Your task to perform on an android device: add a contact in the contacts app Image 0: 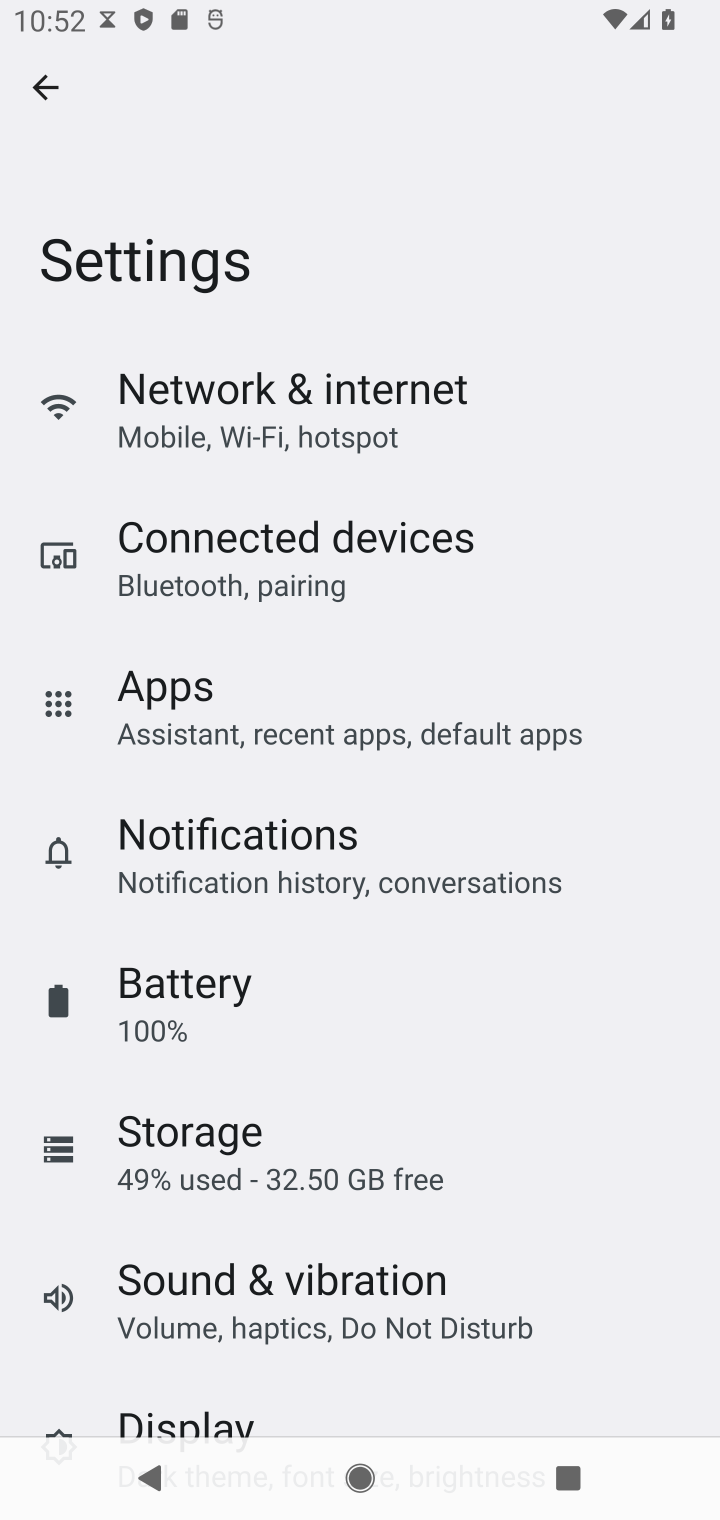
Step 0: press back button
Your task to perform on an android device: add a contact in the contacts app Image 1: 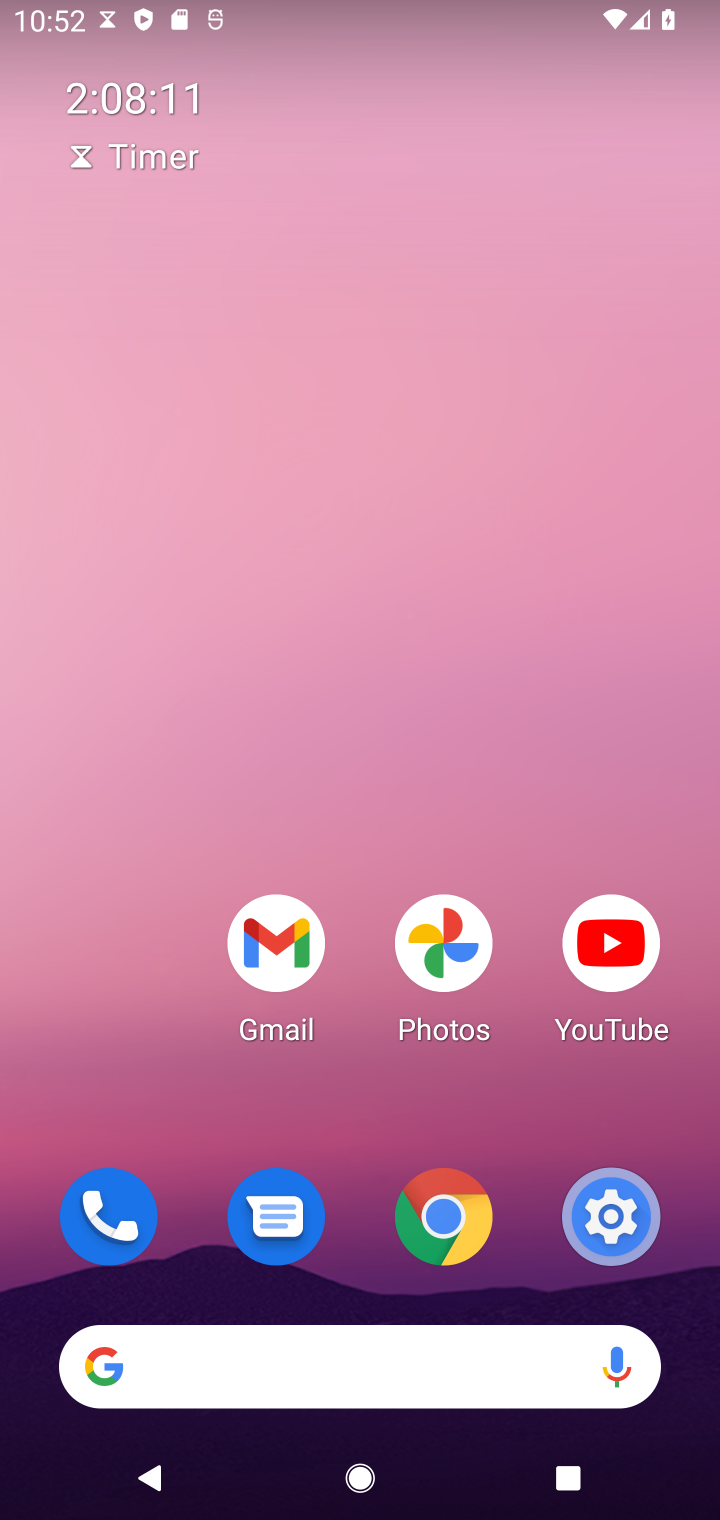
Step 1: drag from (150, 828) to (264, 68)
Your task to perform on an android device: add a contact in the contacts app Image 2: 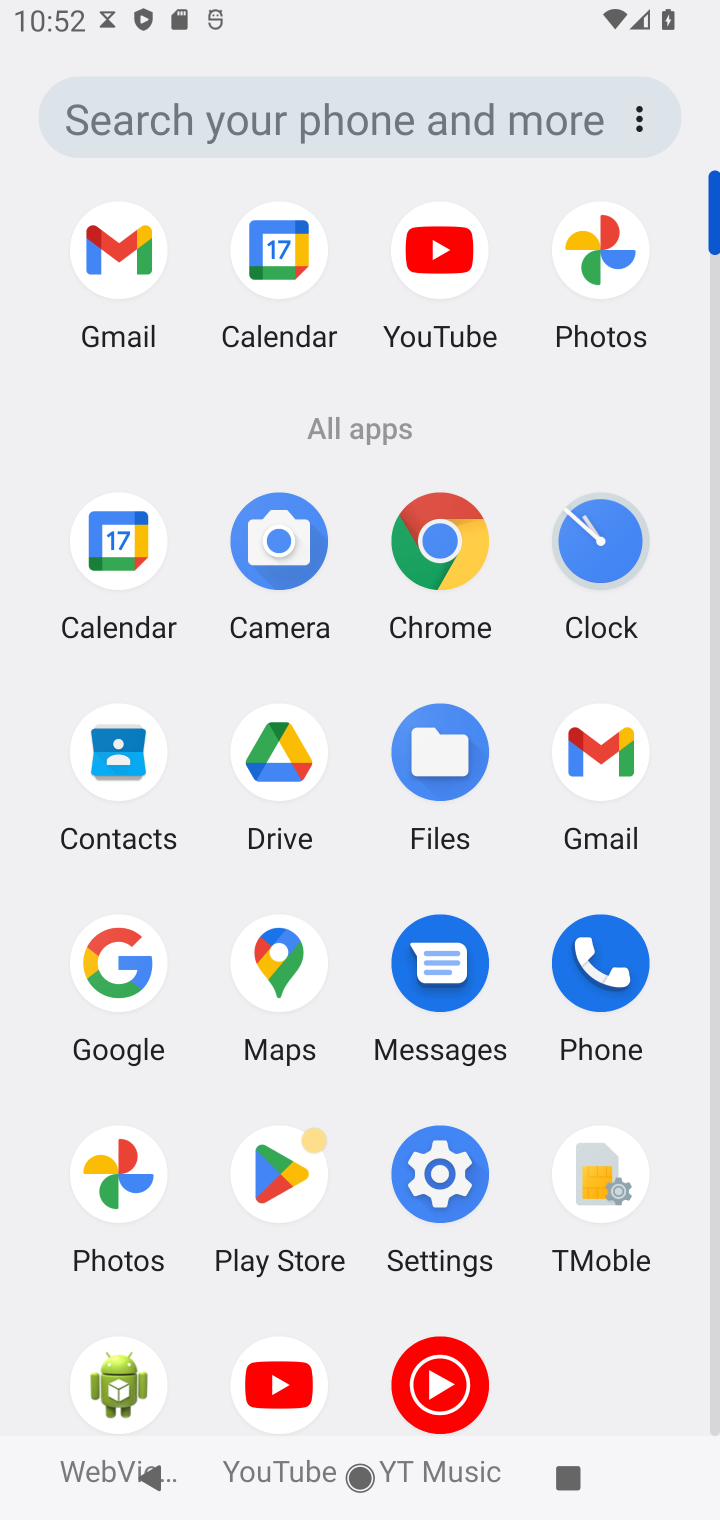
Step 2: click (593, 989)
Your task to perform on an android device: add a contact in the contacts app Image 3: 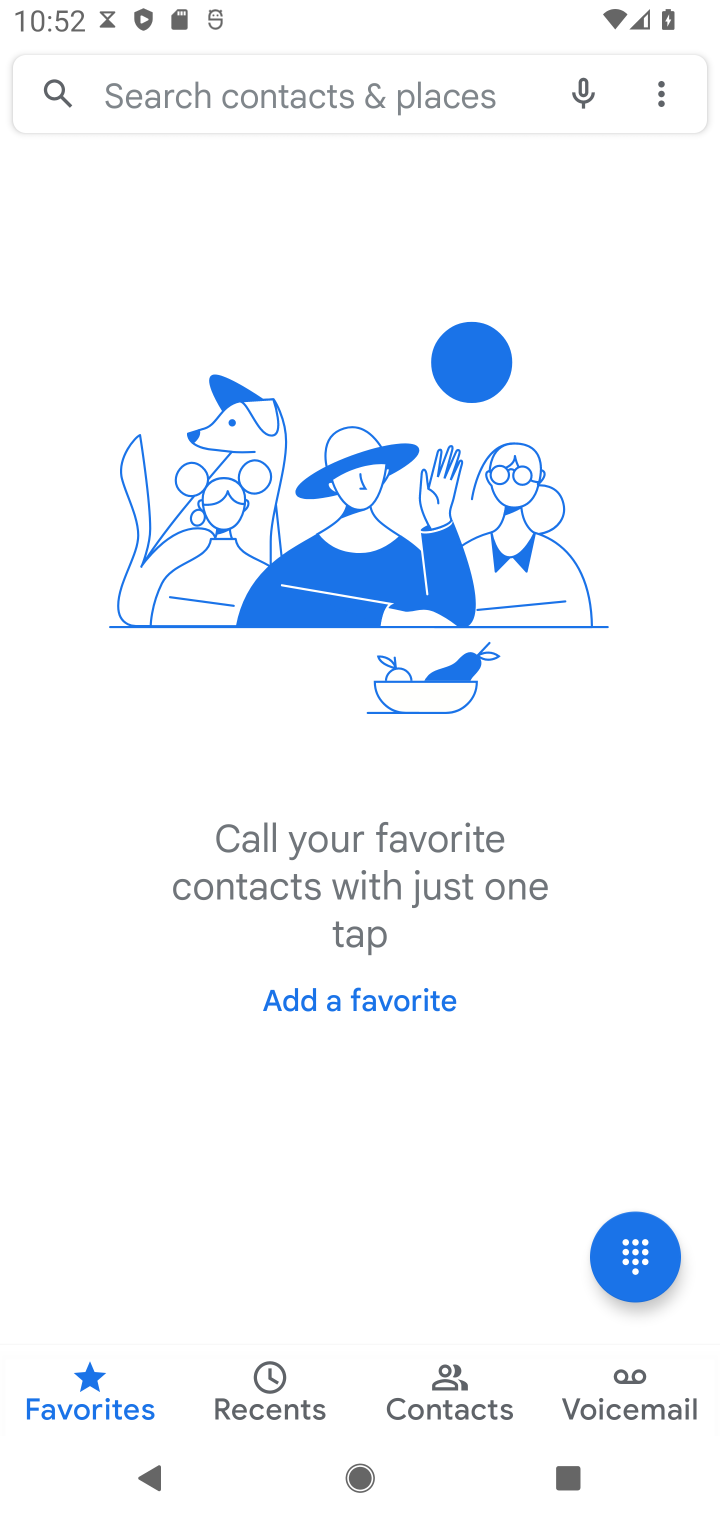
Step 3: press back button
Your task to perform on an android device: add a contact in the contacts app Image 4: 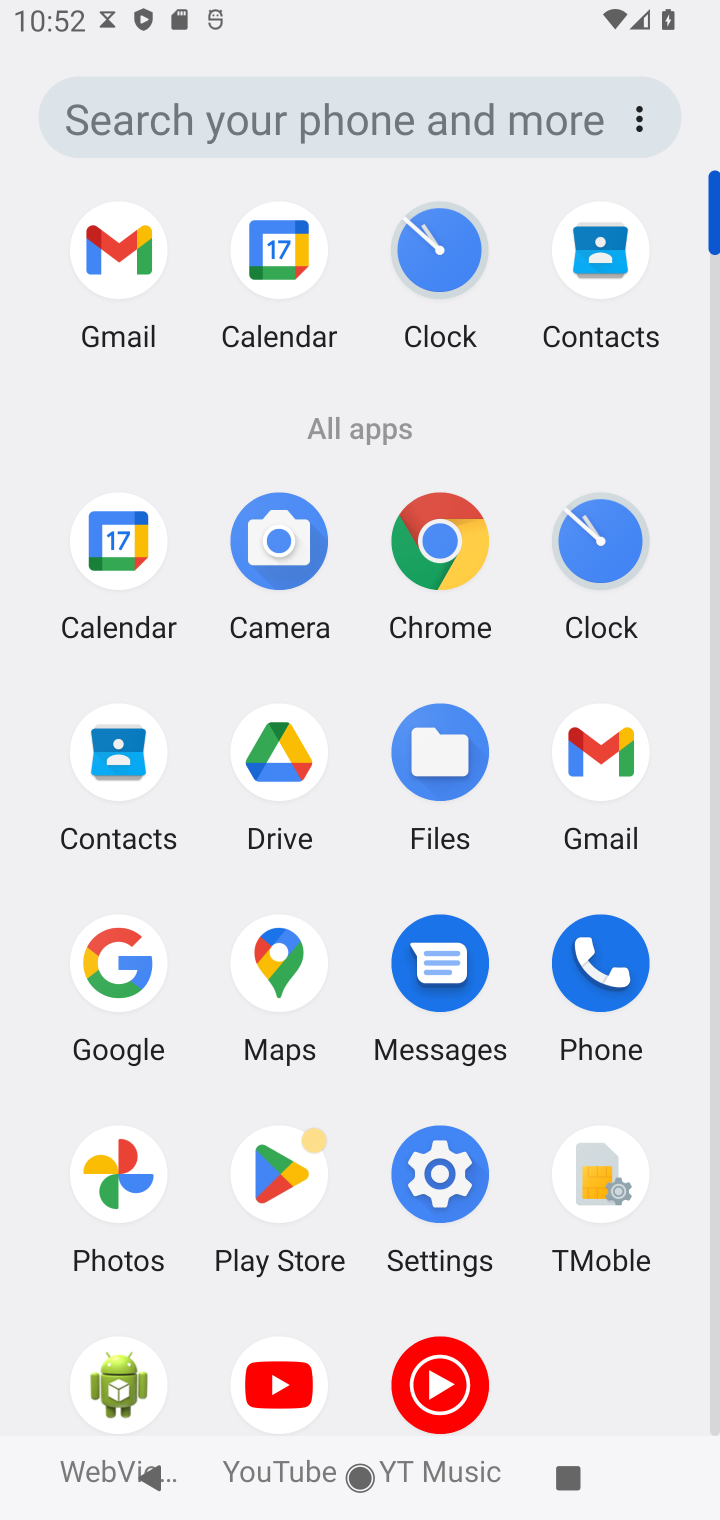
Step 4: click (86, 732)
Your task to perform on an android device: add a contact in the contacts app Image 5: 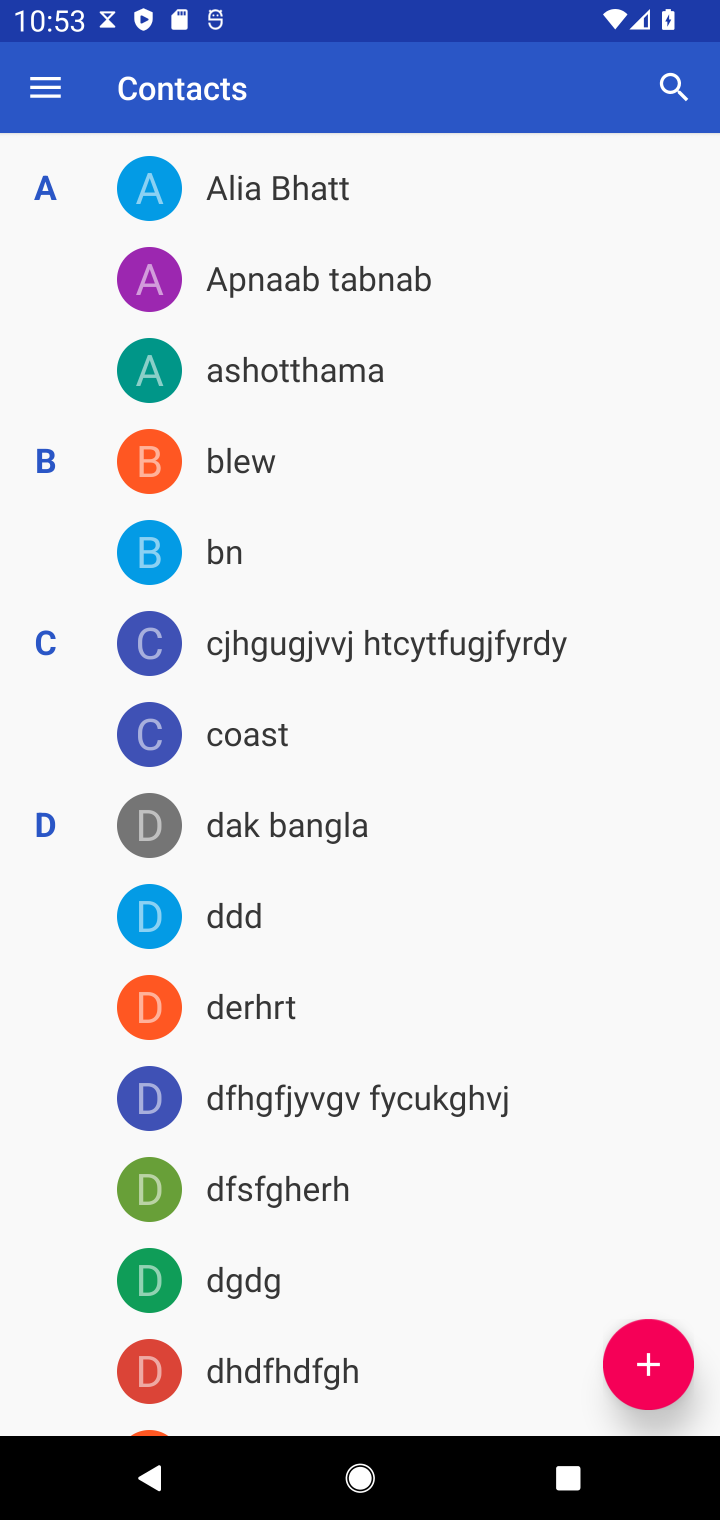
Step 5: click (652, 1354)
Your task to perform on an android device: add a contact in the contacts app Image 6: 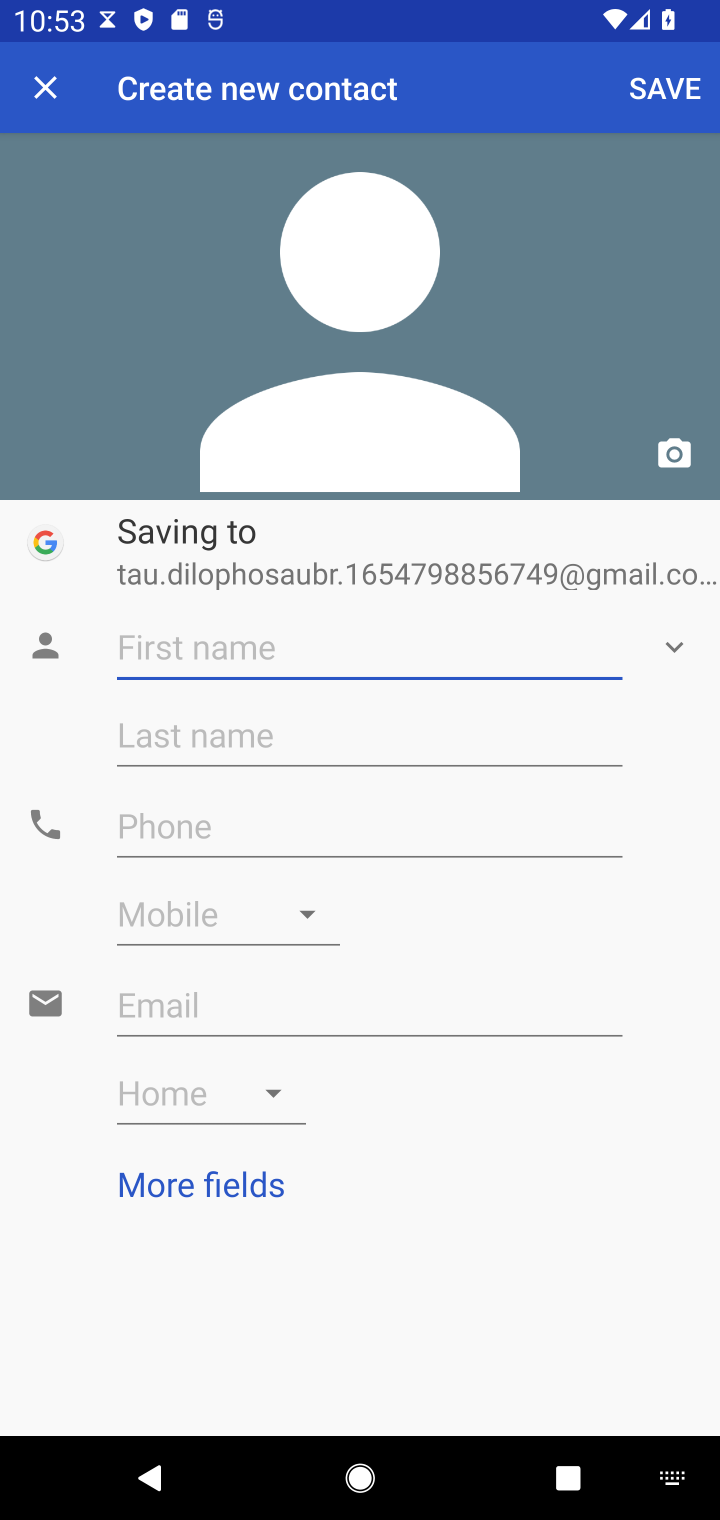
Step 6: click (239, 641)
Your task to perform on an android device: add a contact in the contacts app Image 7: 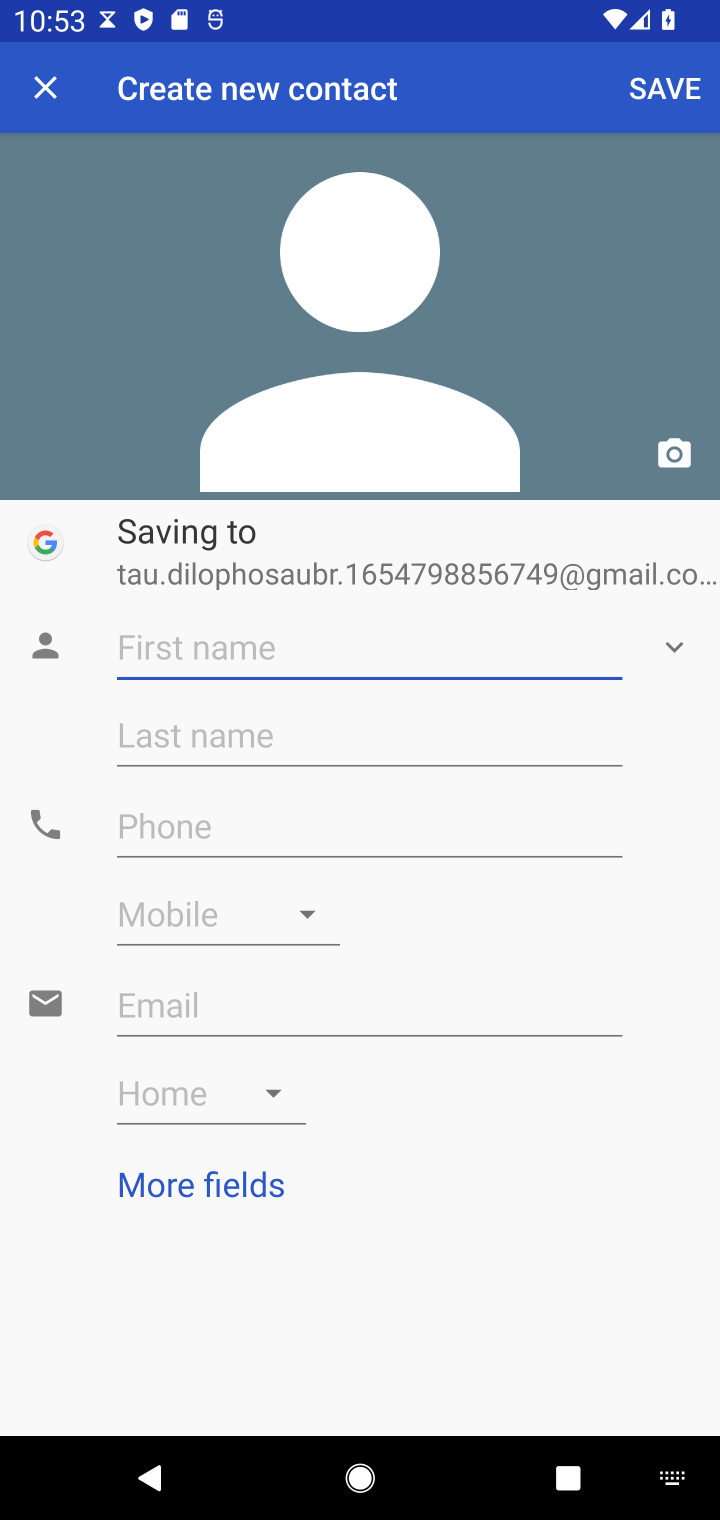
Step 7: type "rfvfvf"
Your task to perform on an android device: add a contact in the contacts app Image 8: 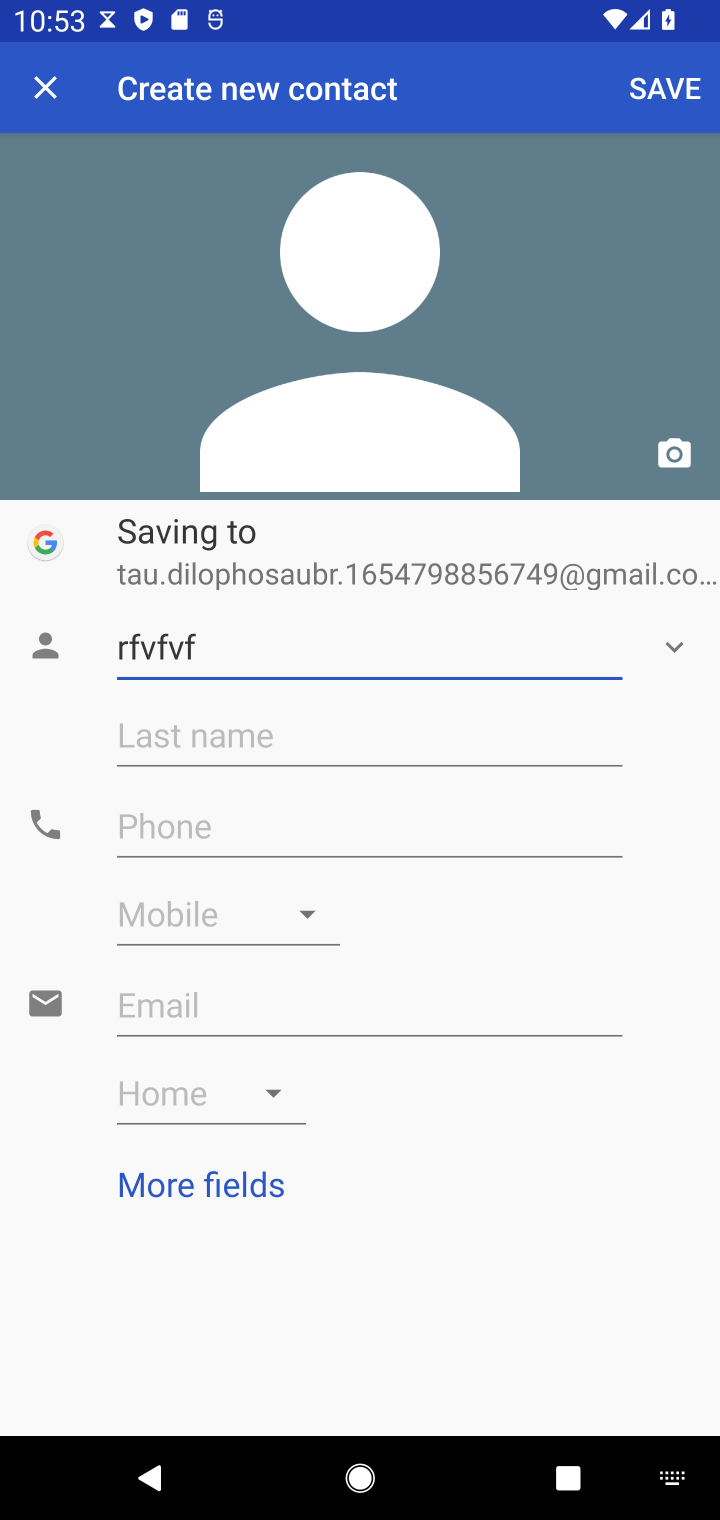
Step 8: click (204, 830)
Your task to perform on an android device: add a contact in the contacts app Image 9: 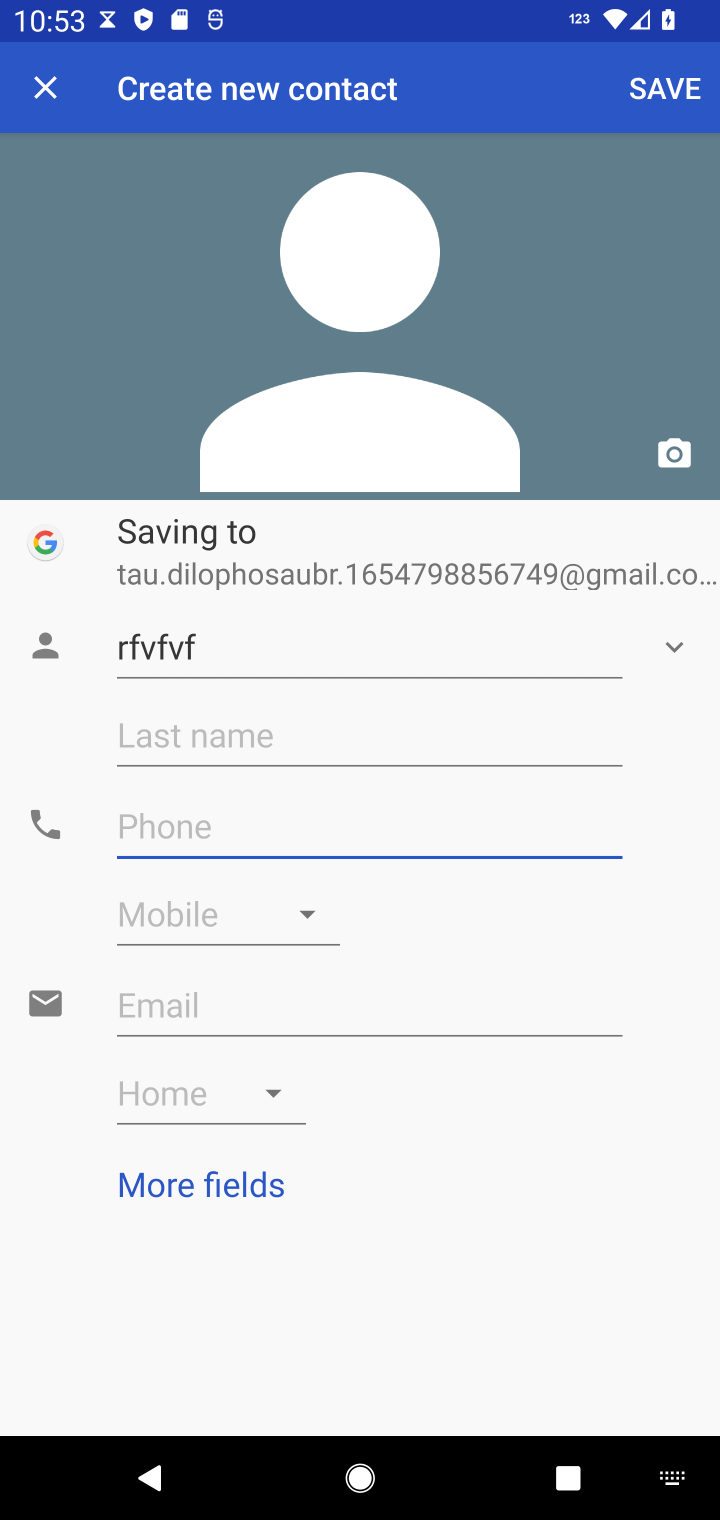
Step 9: type "65776"
Your task to perform on an android device: add a contact in the contacts app Image 10: 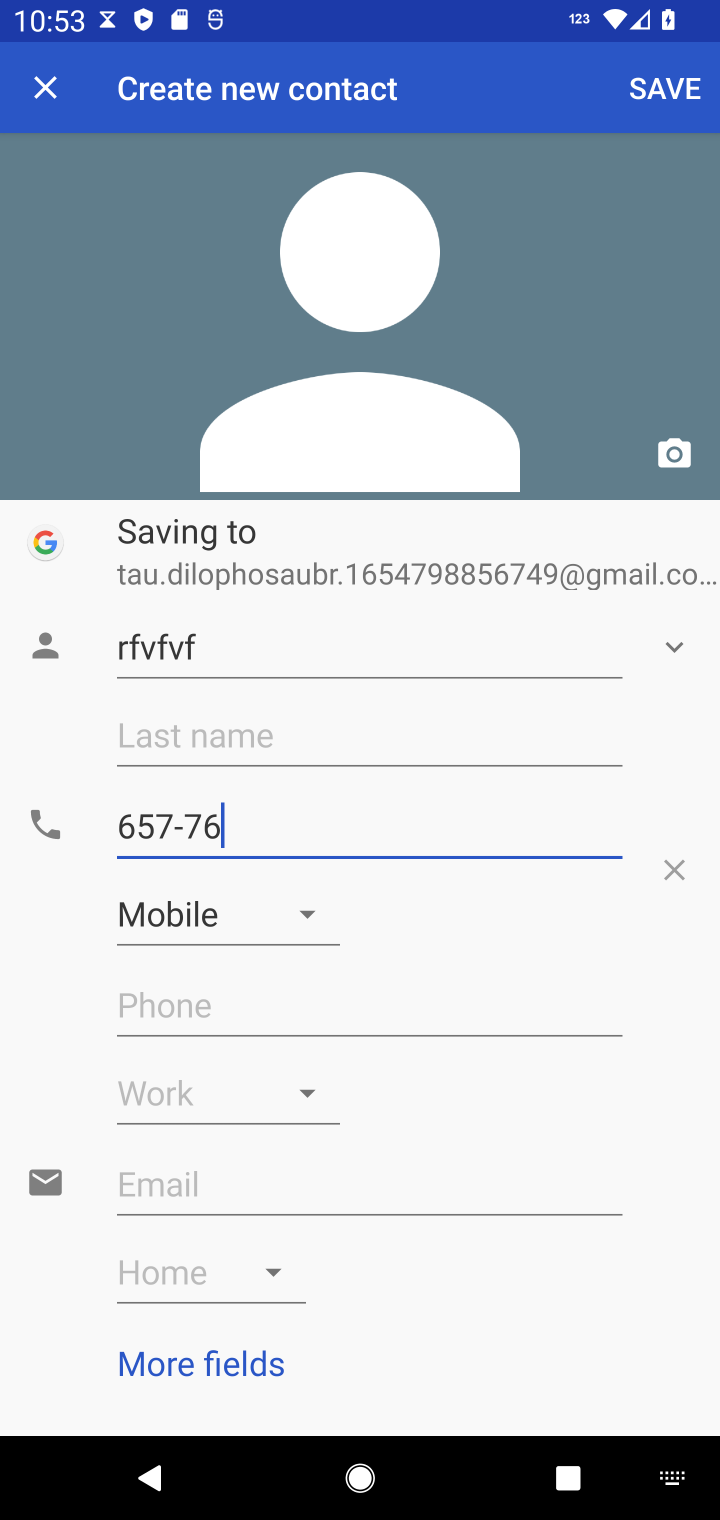
Step 10: click (655, 93)
Your task to perform on an android device: add a contact in the contacts app Image 11: 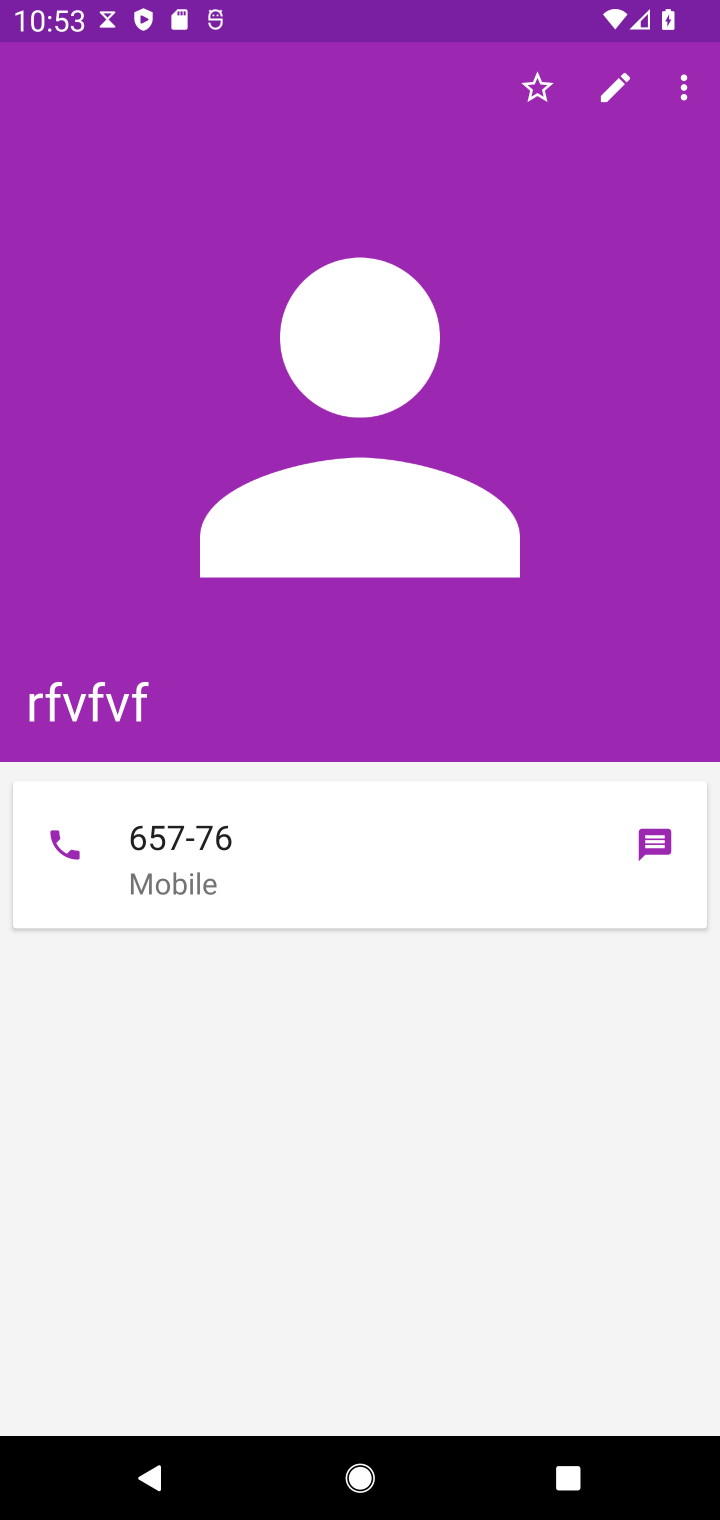
Step 11: task complete